Your task to perform on an android device: Open settings on Google Maps Image 0: 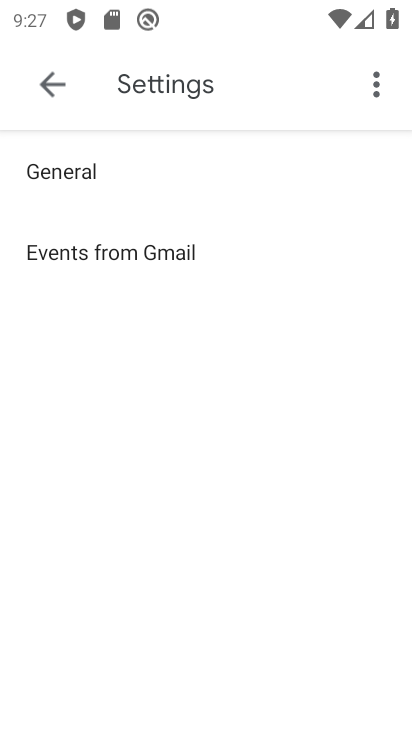
Step 0: press home button
Your task to perform on an android device: Open settings on Google Maps Image 1: 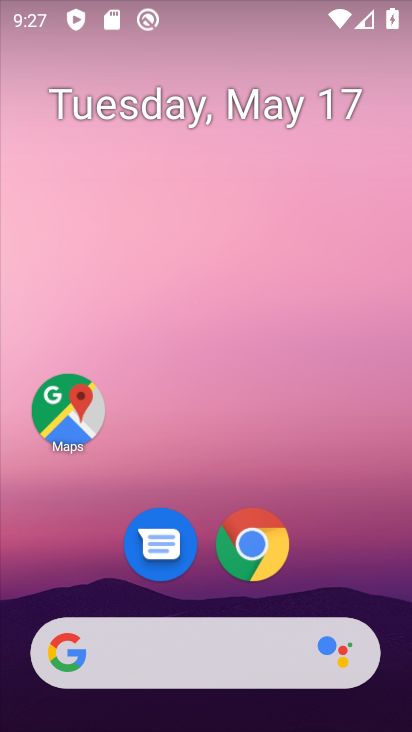
Step 1: click (77, 415)
Your task to perform on an android device: Open settings on Google Maps Image 2: 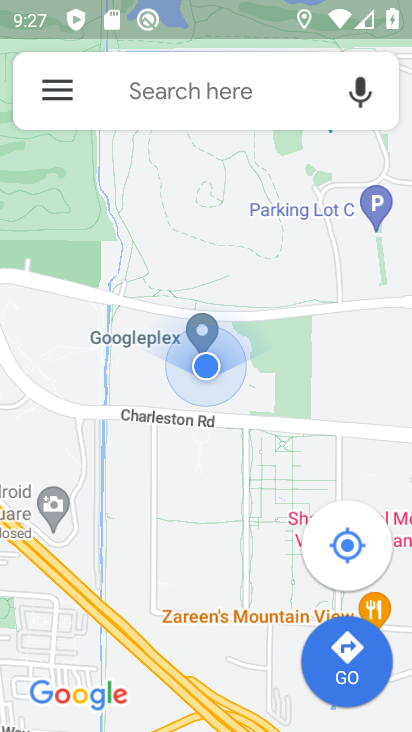
Step 2: click (59, 96)
Your task to perform on an android device: Open settings on Google Maps Image 3: 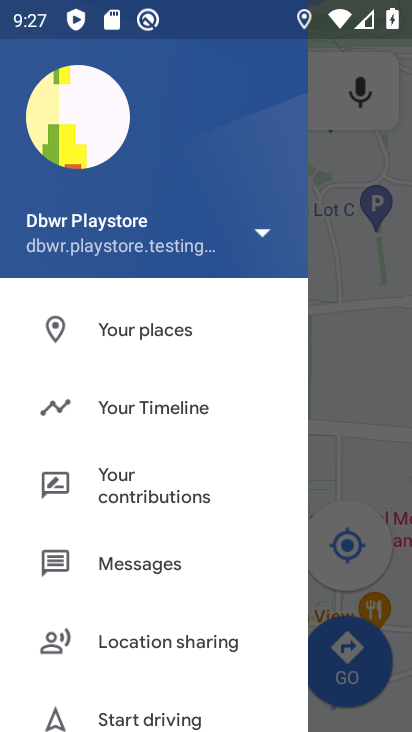
Step 3: drag from (190, 681) to (188, 349)
Your task to perform on an android device: Open settings on Google Maps Image 4: 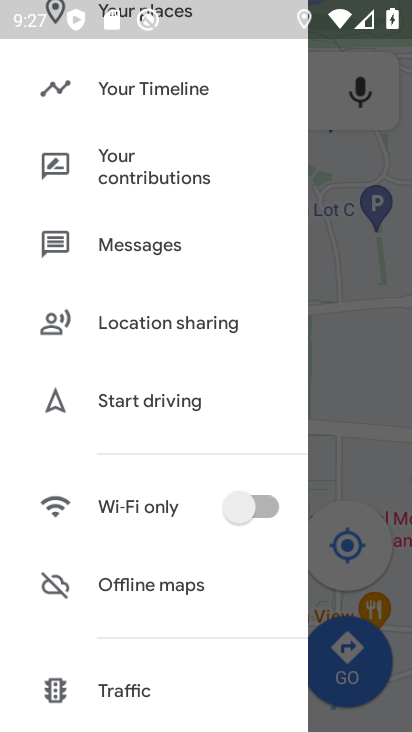
Step 4: drag from (193, 677) to (182, 258)
Your task to perform on an android device: Open settings on Google Maps Image 5: 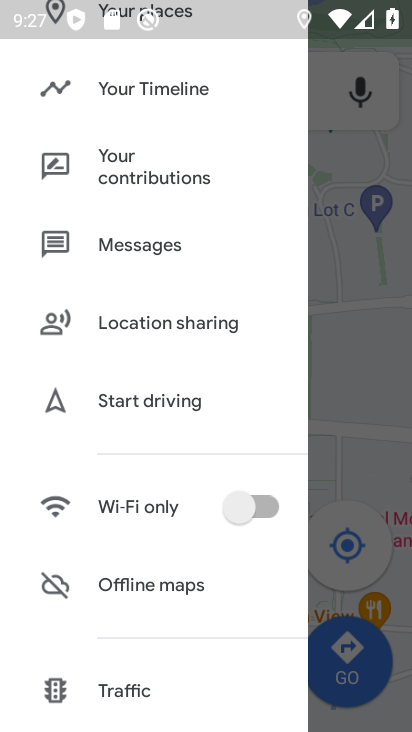
Step 5: drag from (204, 652) to (206, 18)
Your task to perform on an android device: Open settings on Google Maps Image 6: 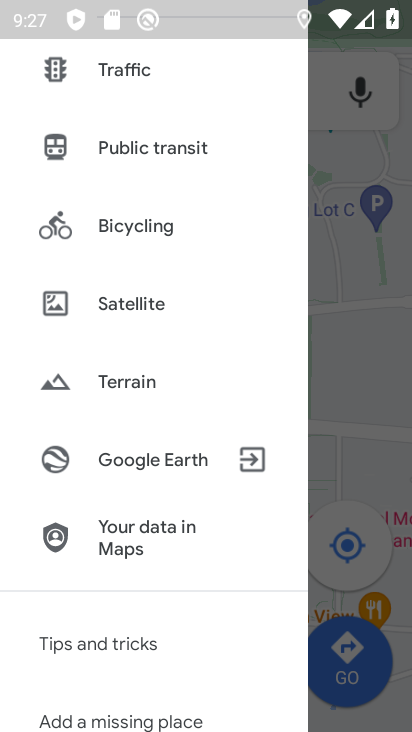
Step 6: drag from (213, 642) to (199, 192)
Your task to perform on an android device: Open settings on Google Maps Image 7: 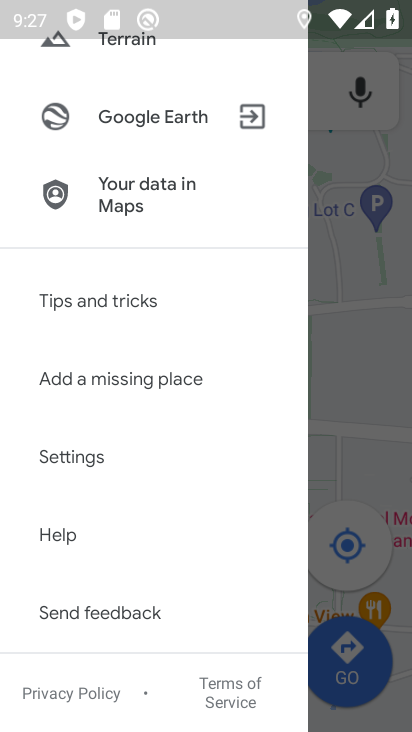
Step 7: click (209, 467)
Your task to perform on an android device: Open settings on Google Maps Image 8: 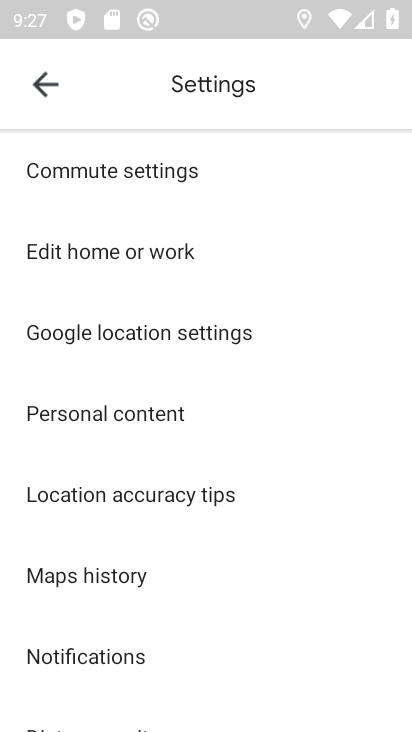
Step 8: task complete